Your task to perform on an android device: Open Google Chrome and open the bookmarks view Image 0: 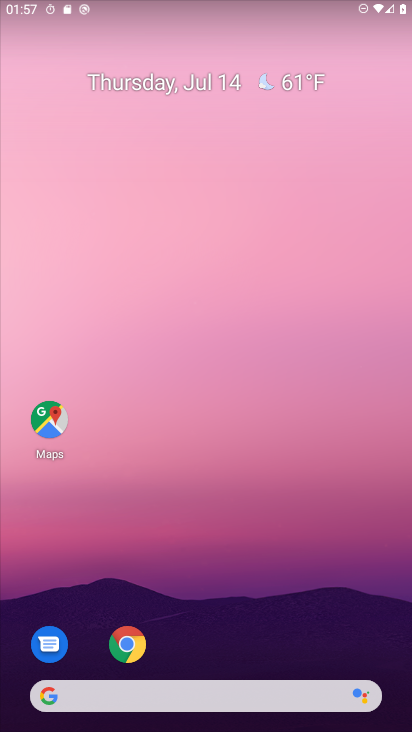
Step 0: drag from (287, 646) to (232, 115)
Your task to perform on an android device: Open Google Chrome and open the bookmarks view Image 1: 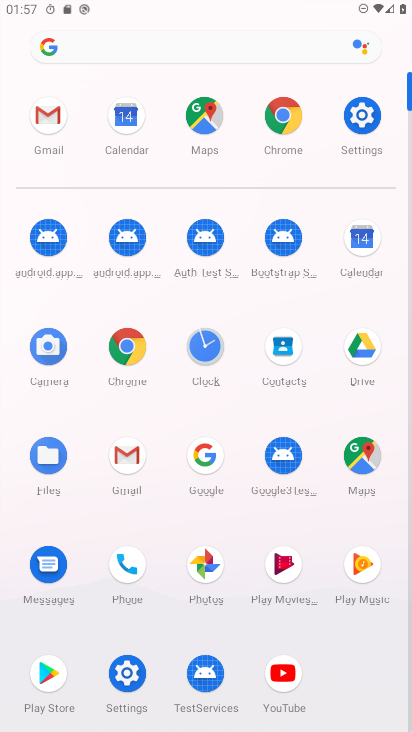
Step 1: click (282, 116)
Your task to perform on an android device: Open Google Chrome and open the bookmarks view Image 2: 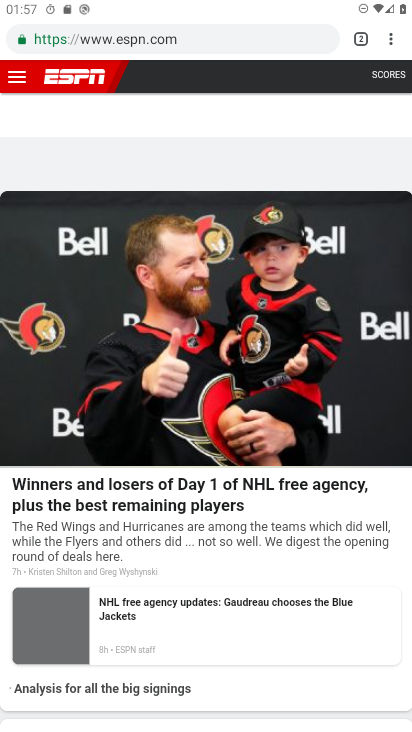
Step 2: task complete